Your task to perform on an android device: Go to calendar. Show me events next week Image 0: 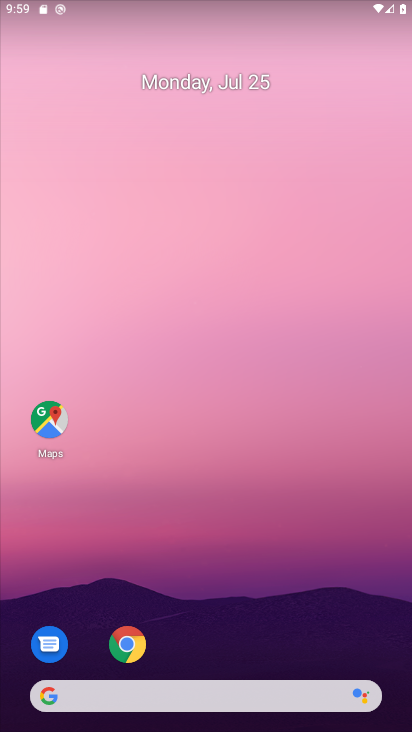
Step 0: drag from (386, 688) to (341, 249)
Your task to perform on an android device: Go to calendar. Show me events next week Image 1: 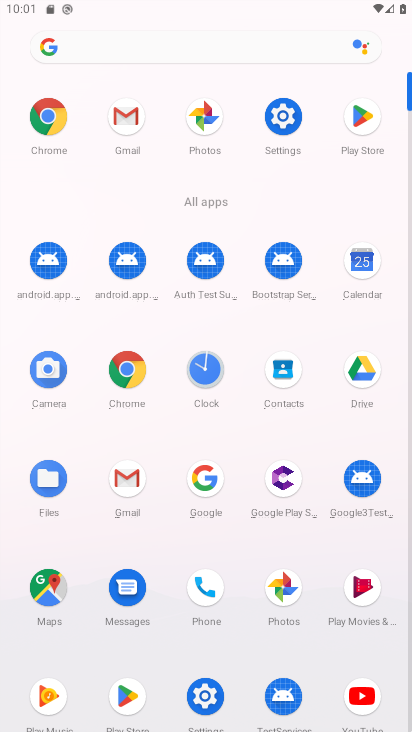
Step 1: click (361, 261)
Your task to perform on an android device: Go to calendar. Show me events next week Image 2: 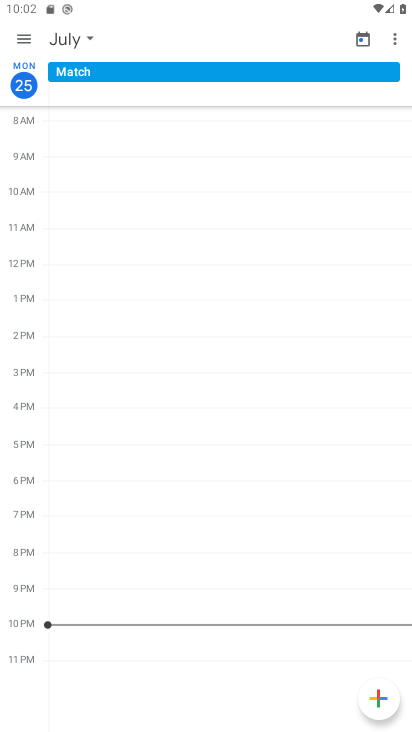
Step 2: click (93, 32)
Your task to perform on an android device: Go to calendar. Show me events next week Image 3: 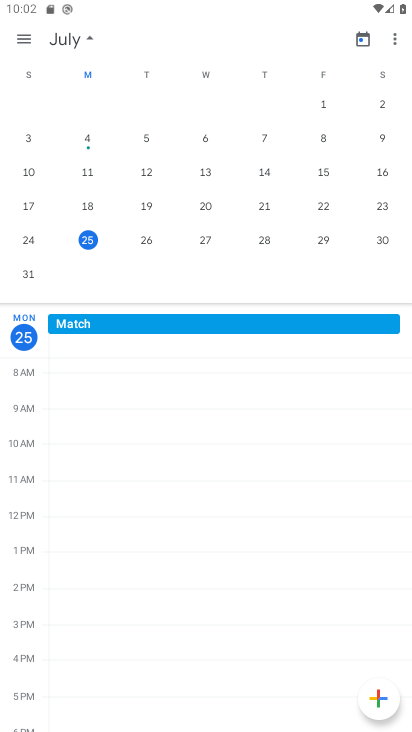
Step 3: task complete